Your task to perform on an android device: Go to wifi settings Image 0: 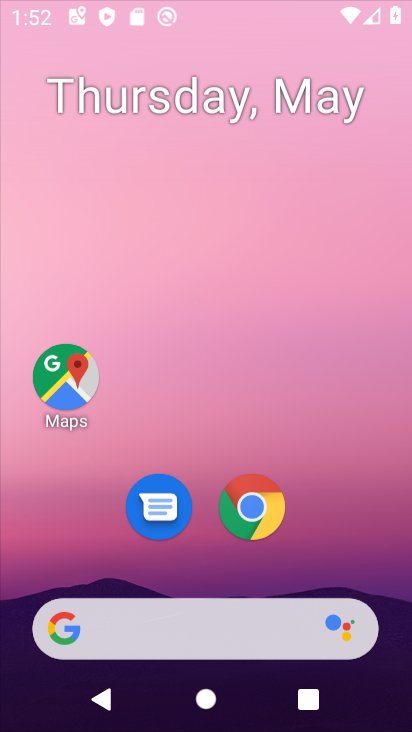
Step 0: drag from (226, 659) to (276, 98)
Your task to perform on an android device: Go to wifi settings Image 1: 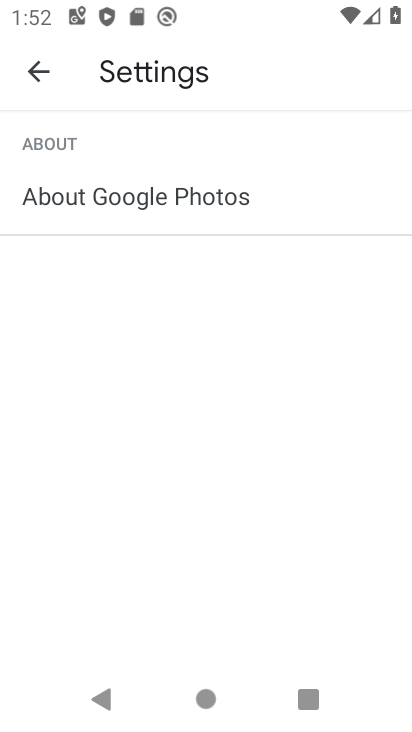
Step 1: press home button
Your task to perform on an android device: Go to wifi settings Image 2: 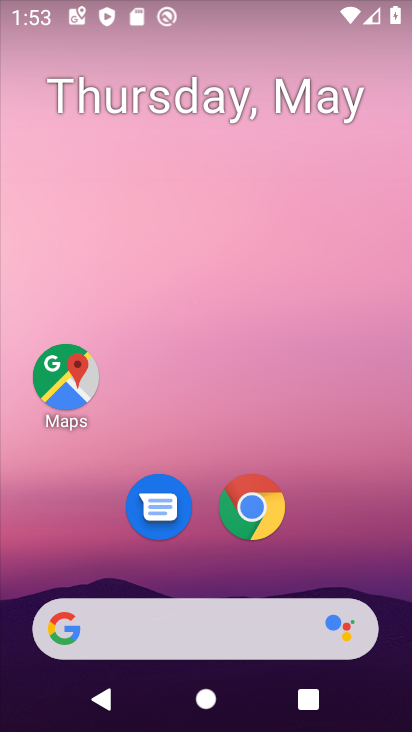
Step 2: drag from (252, 649) to (315, 8)
Your task to perform on an android device: Go to wifi settings Image 3: 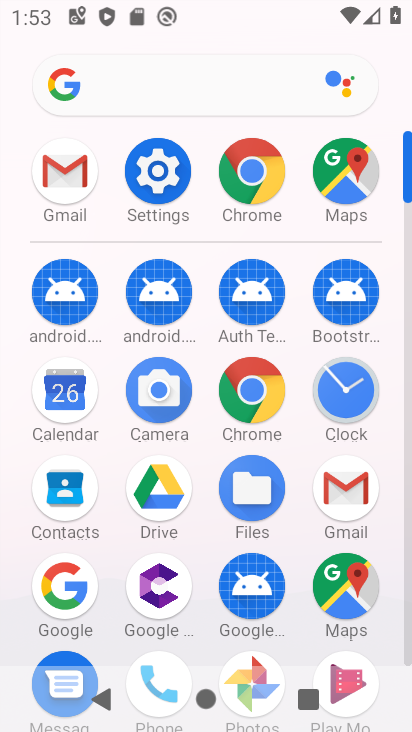
Step 3: click (146, 173)
Your task to perform on an android device: Go to wifi settings Image 4: 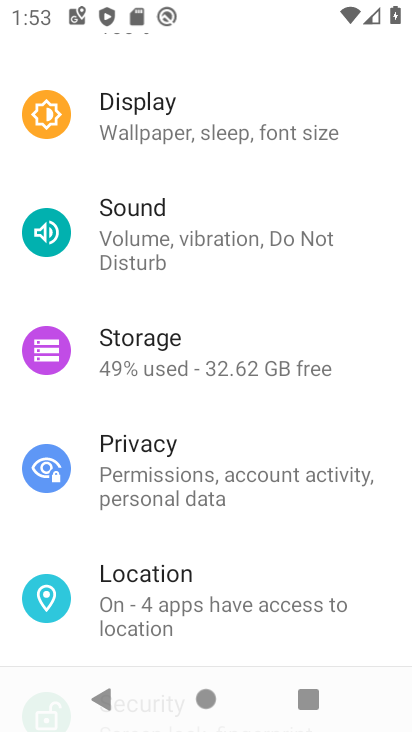
Step 4: drag from (240, 157) to (263, 624)
Your task to perform on an android device: Go to wifi settings Image 5: 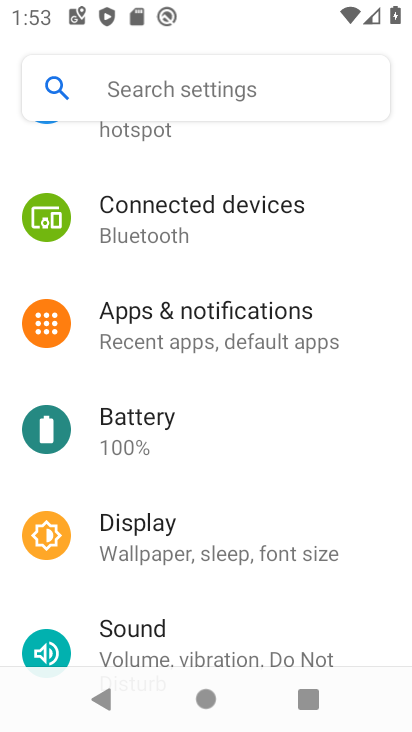
Step 5: drag from (217, 231) to (190, 623)
Your task to perform on an android device: Go to wifi settings Image 6: 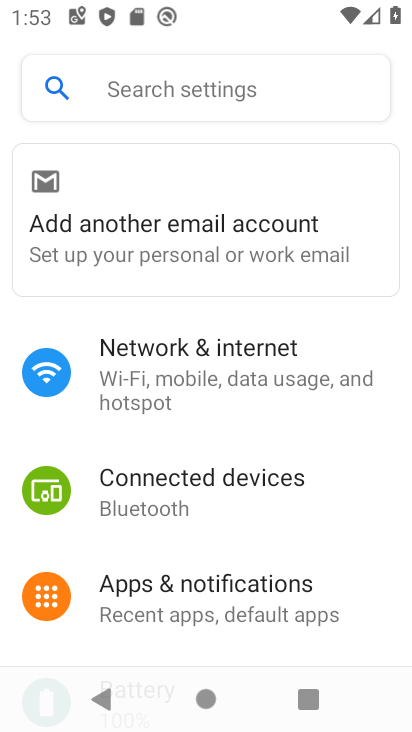
Step 6: click (122, 422)
Your task to perform on an android device: Go to wifi settings Image 7: 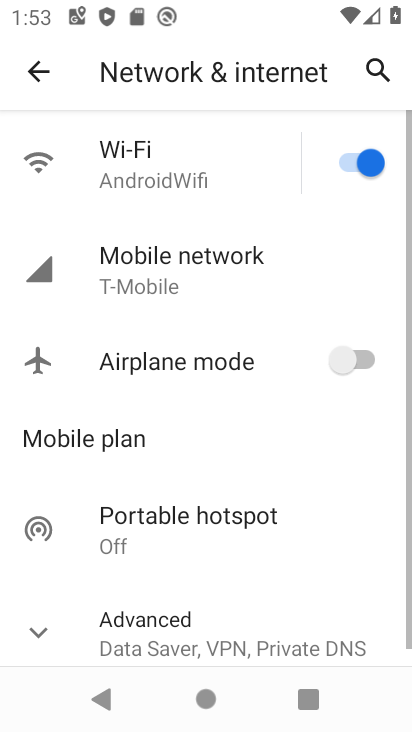
Step 7: click (184, 177)
Your task to perform on an android device: Go to wifi settings Image 8: 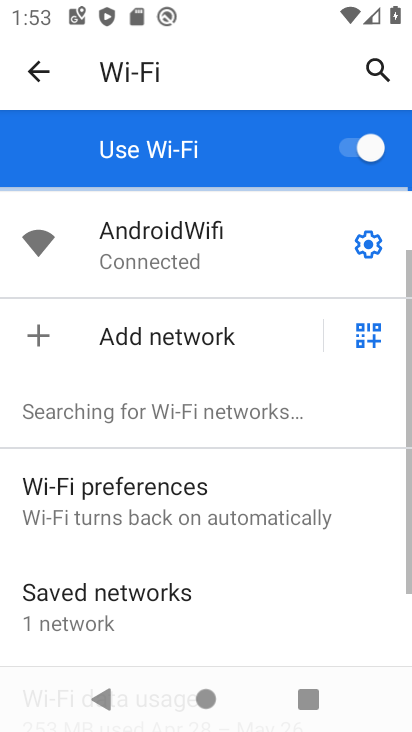
Step 8: task complete